Your task to perform on an android device: see tabs open on other devices in the chrome app Image 0: 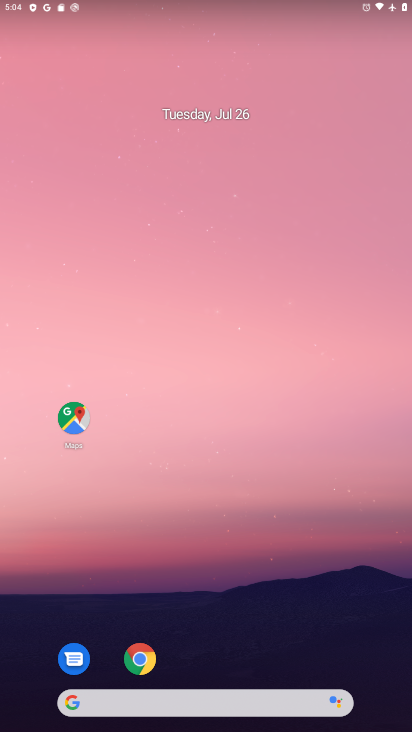
Step 0: press home button
Your task to perform on an android device: see tabs open on other devices in the chrome app Image 1: 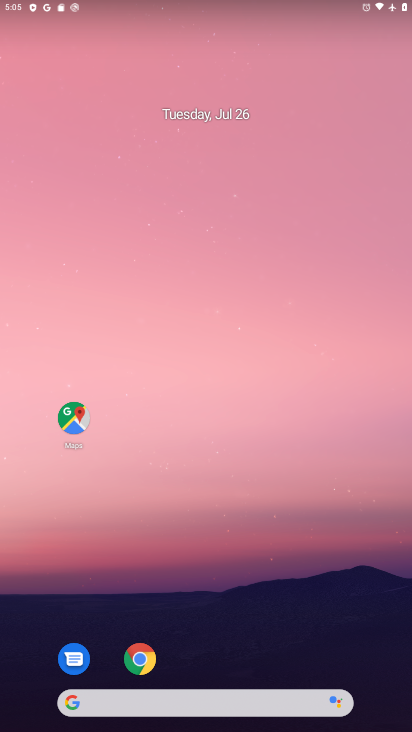
Step 1: drag from (272, 13) to (252, 465)
Your task to perform on an android device: see tabs open on other devices in the chrome app Image 2: 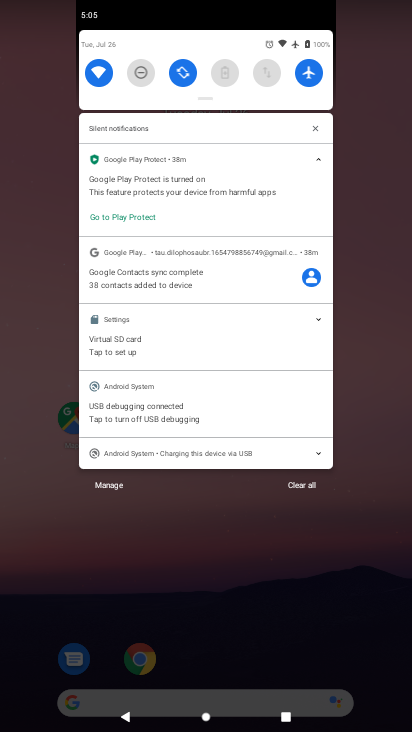
Step 2: click (220, 570)
Your task to perform on an android device: see tabs open on other devices in the chrome app Image 3: 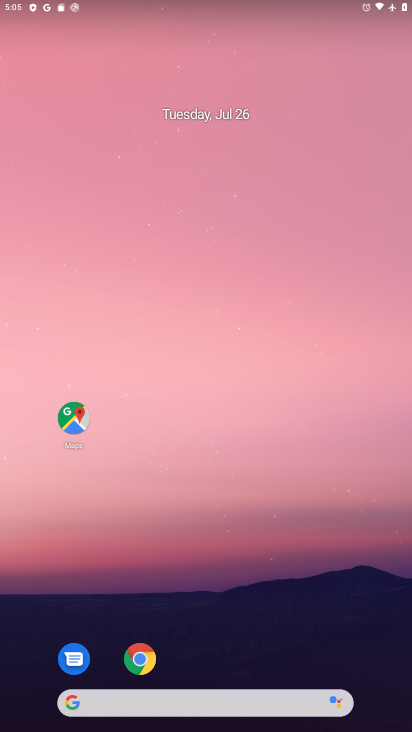
Step 3: click (144, 659)
Your task to perform on an android device: see tabs open on other devices in the chrome app Image 4: 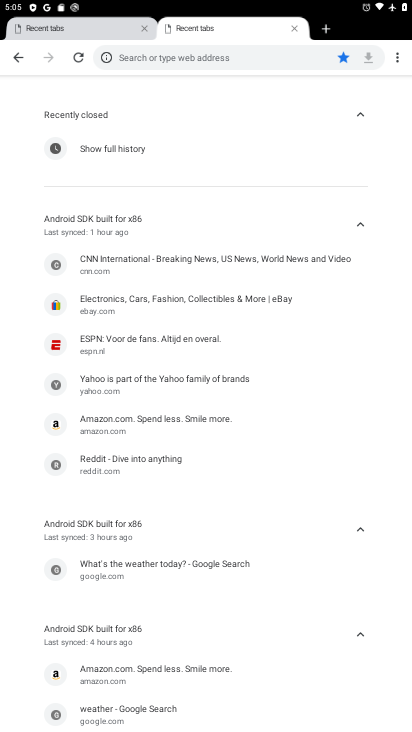
Step 4: click (392, 55)
Your task to perform on an android device: see tabs open on other devices in the chrome app Image 5: 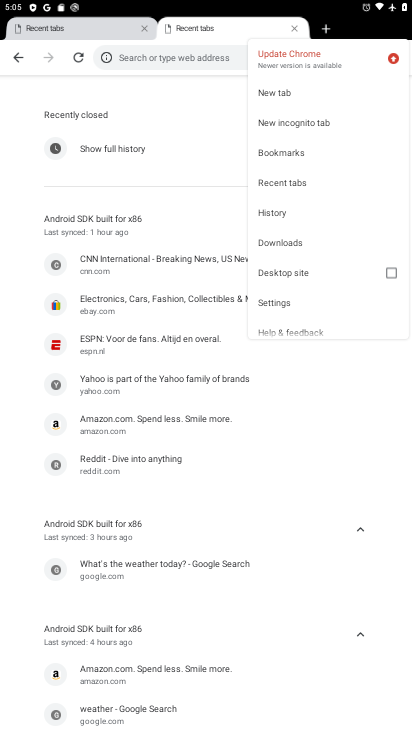
Step 5: click (311, 179)
Your task to perform on an android device: see tabs open on other devices in the chrome app Image 6: 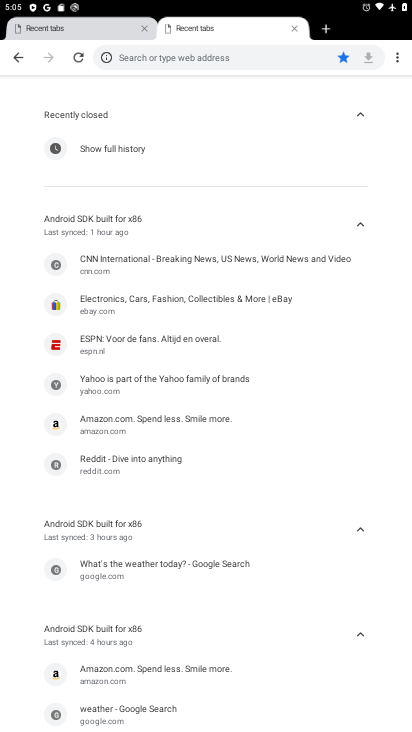
Step 6: task complete